Your task to perform on an android device: Is it going to rain today? Image 0: 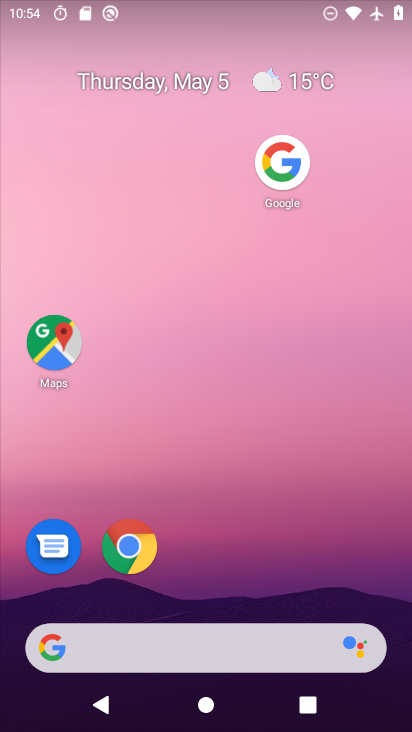
Step 0: click (298, 81)
Your task to perform on an android device: Is it going to rain today? Image 1: 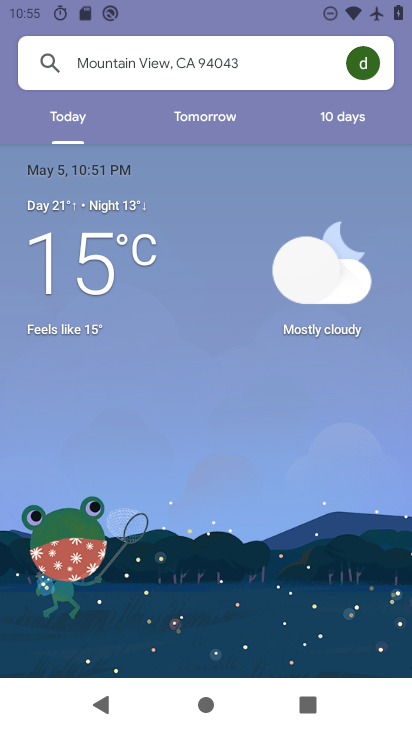
Step 1: task complete